Your task to perform on an android device: star an email in the gmail app Image 0: 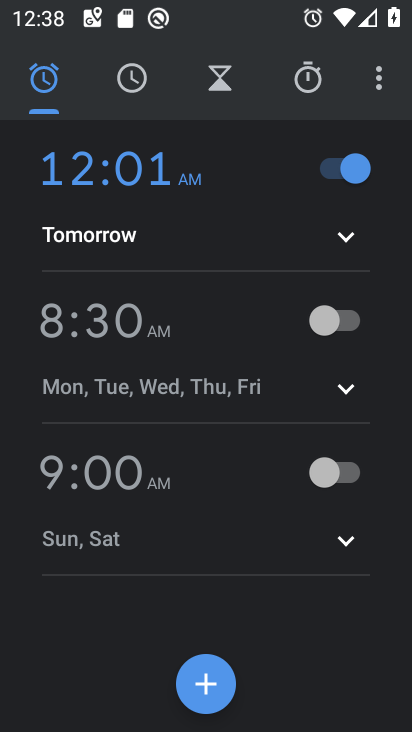
Step 0: press home button
Your task to perform on an android device: star an email in the gmail app Image 1: 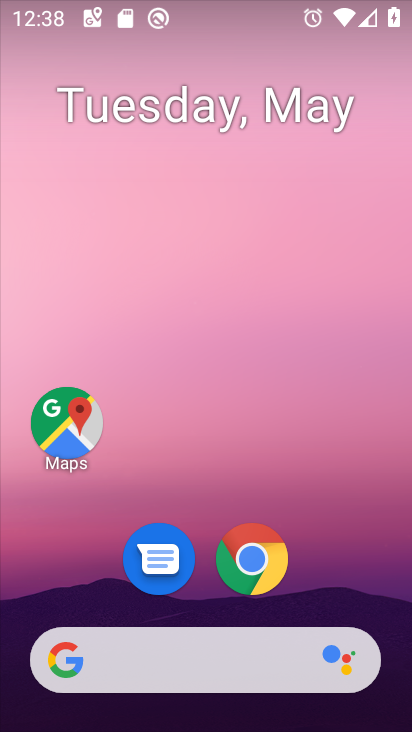
Step 1: drag from (353, 595) to (300, 103)
Your task to perform on an android device: star an email in the gmail app Image 2: 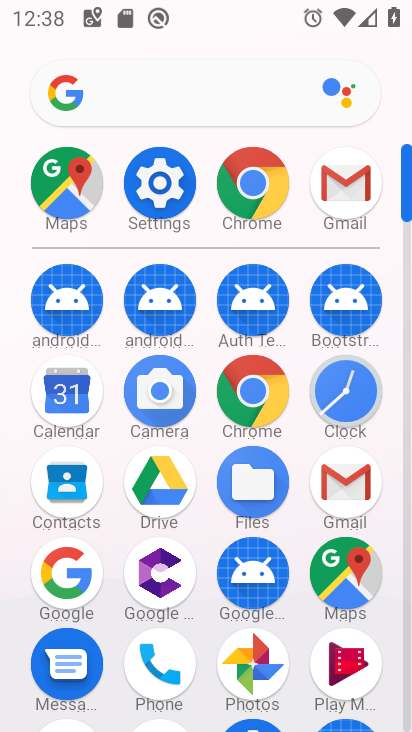
Step 2: click (354, 195)
Your task to perform on an android device: star an email in the gmail app Image 3: 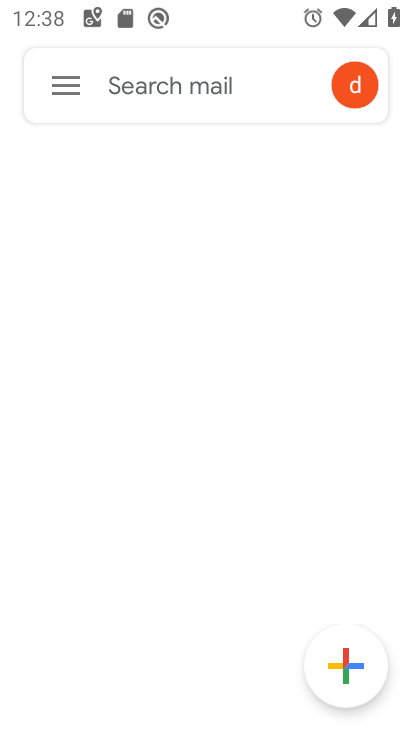
Step 3: click (67, 91)
Your task to perform on an android device: star an email in the gmail app Image 4: 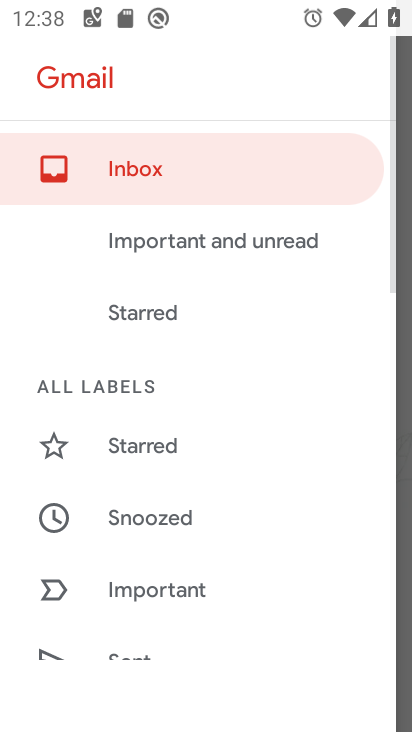
Step 4: drag from (171, 616) to (155, 232)
Your task to perform on an android device: star an email in the gmail app Image 5: 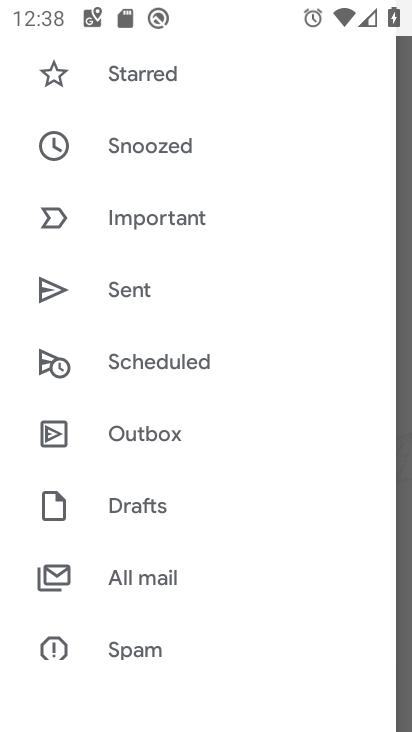
Step 5: click (199, 574)
Your task to perform on an android device: star an email in the gmail app Image 6: 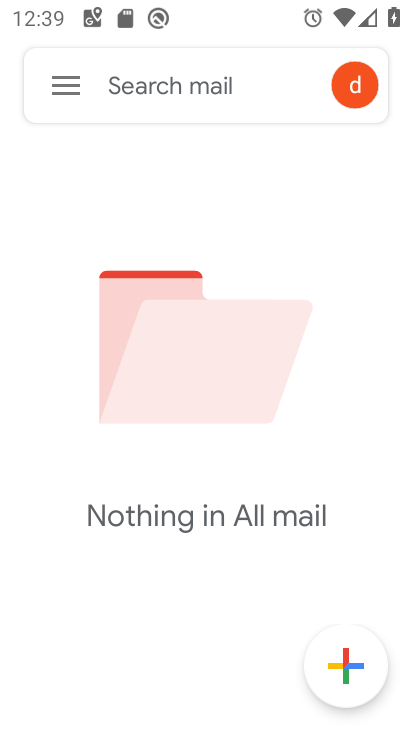
Step 6: task complete